Your task to perform on an android device: What's on my calendar today? Image 0: 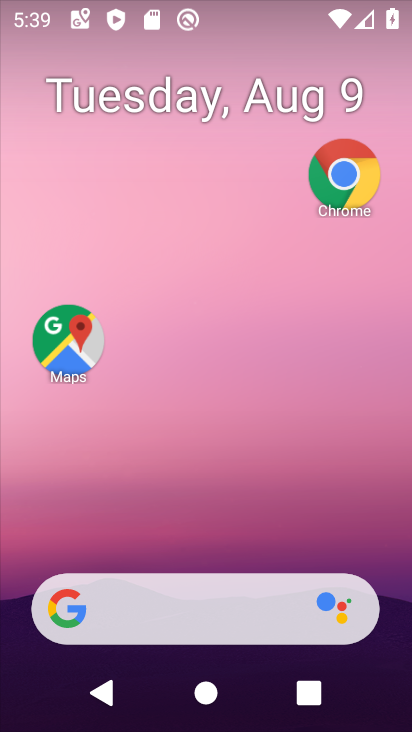
Step 0: drag from (206, 552) to (214, 506)
Your task to perform on an android device: What's on my calendar today? Image 1: 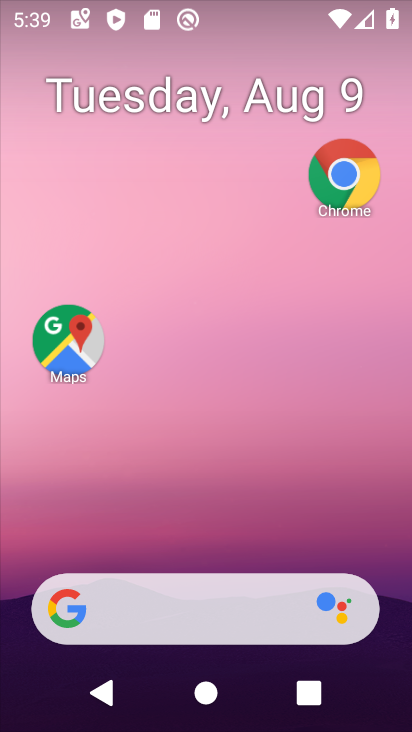
Step 1: drag from (192, 584) to (280, 262)
Your task to perform on an android device: What's on my calendar today? Image 2: 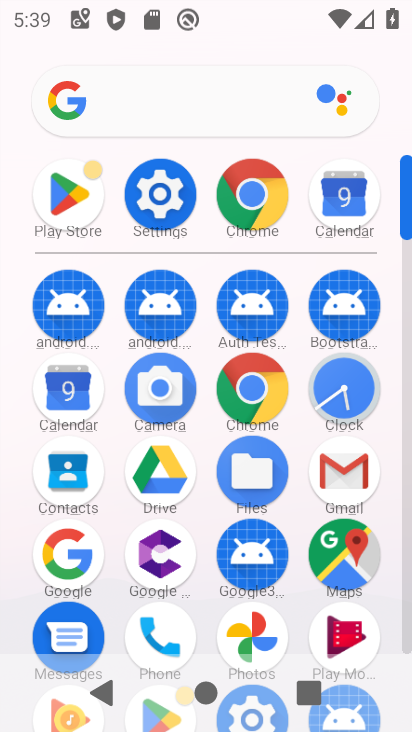
Step 2: drag from (213, 547) to (231, 360)
Your task to perform on an android device: What's on my calendar today? Image 3: 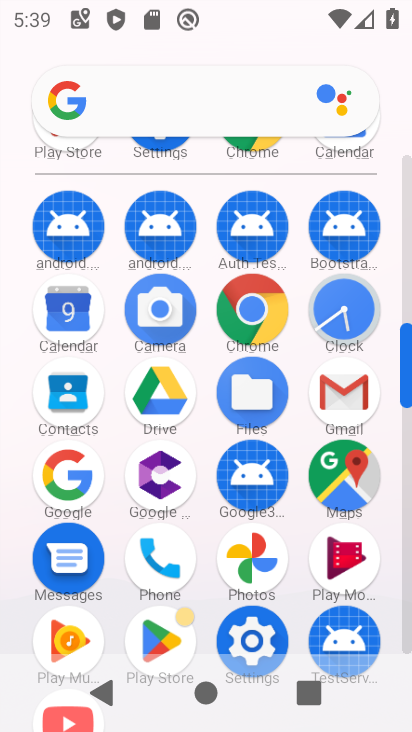
Step 3: drag from (204, 598) to (272, 368)
Your task to perform on an android device: What's on my calendar today? Image 4: 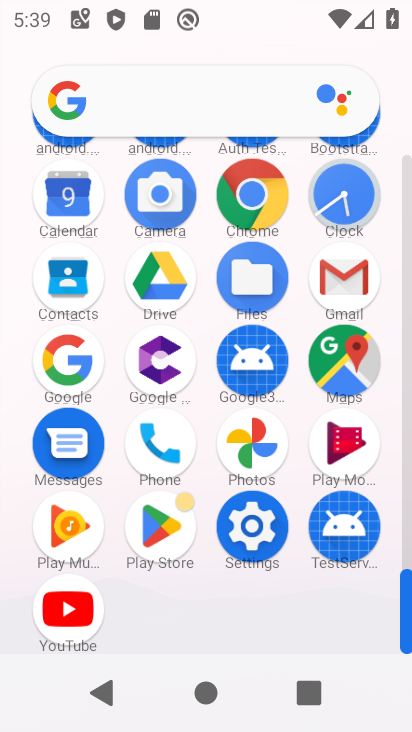
Step 4: drag from (196, 574) to (210, 418)
Your task to perform on an android device: What's on my calendar today? Image 5: 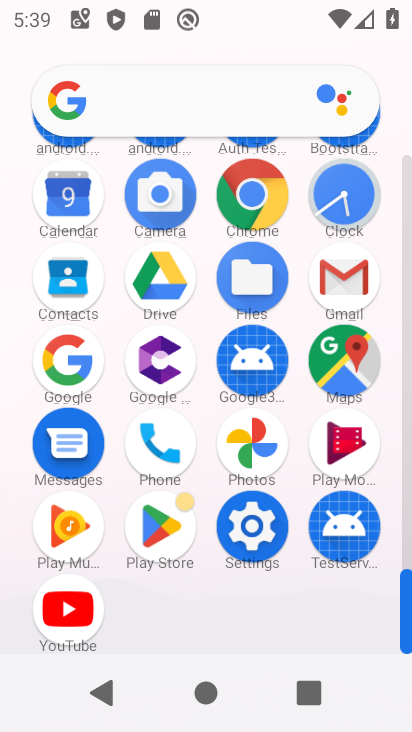
Step 5: drag from (227, 595) to (217, 398)
Your task to perform on an android device: What's on my calendar today? Image 6: 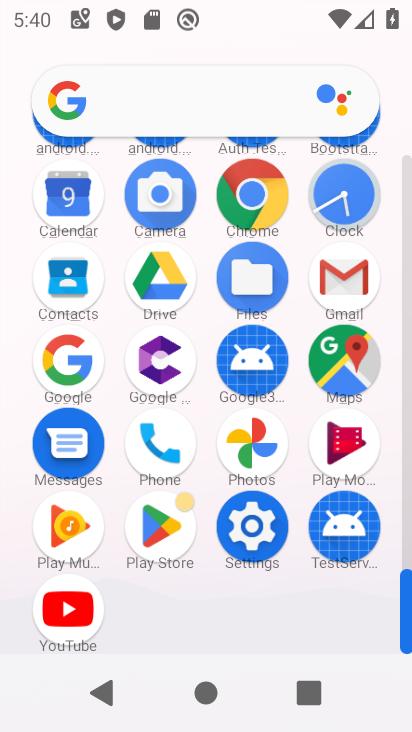
Step 6: click (60, 210)
Your task to perform on an android device: What's on my calendar today? Image 7: 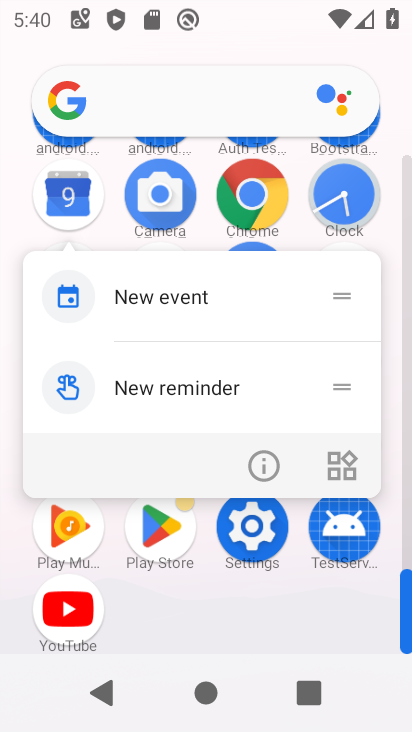
Step 7: click (247, 470)
Your task to perform on an android device: What's on my calendar today? Image 8: 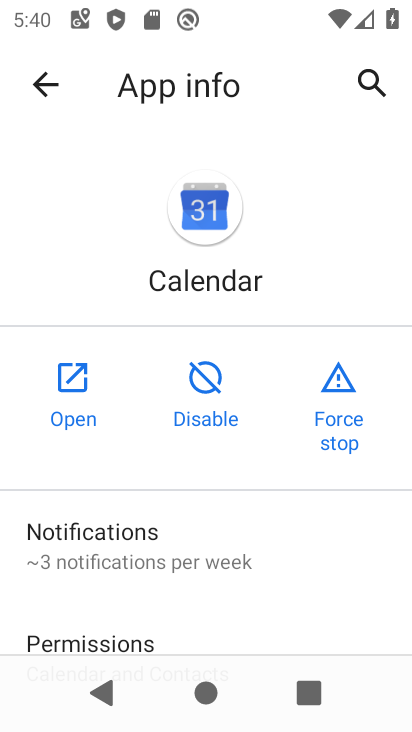
Step 8: click (82, 365)
Your task to perform on an android device: What's on my calendar today? Image 9: 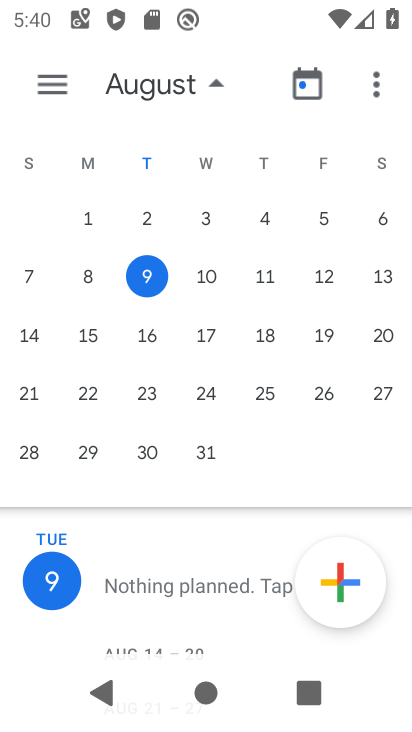
Step 9: click (148, 273)
Your task to perform on an android device: What's on my calendar today? Image 10: 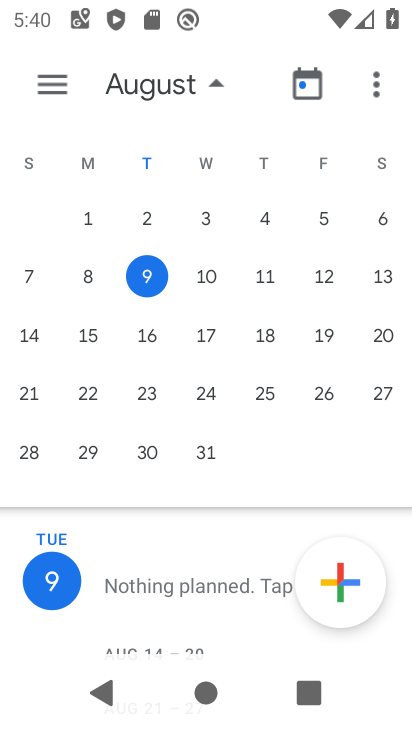
Step 10: task complete